Your task to perform on an android device: visit the assistant section in the google photos Image 0: 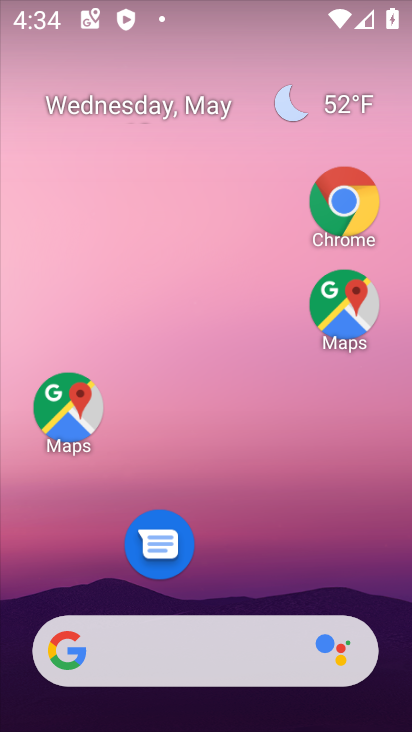
Step 0: drag from (250, 573) to (255, 191)
Your task to perform on an android device: visit the assistant section in the google photos Image 1: 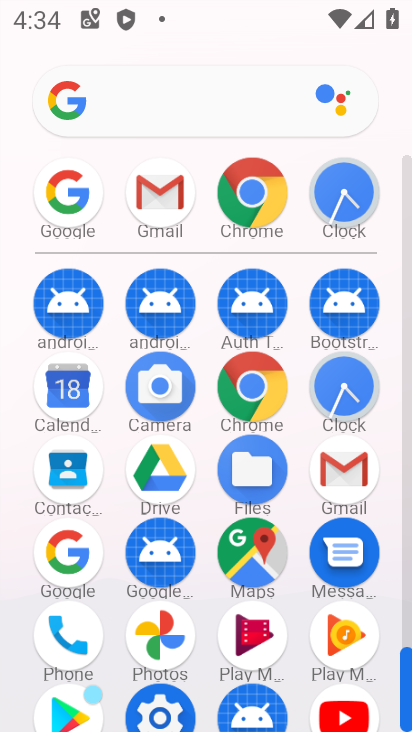
Step 1: click (164, 639)
Your task to perform on an android device: visit the assistant section in the google photos Image 2: 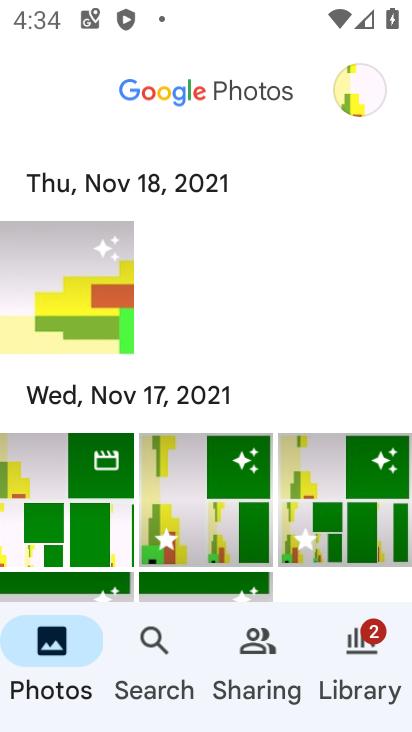
Step 2: click (160, 670)
Your task to perform on an android device: visit the assistant section in the google photos Image 3: 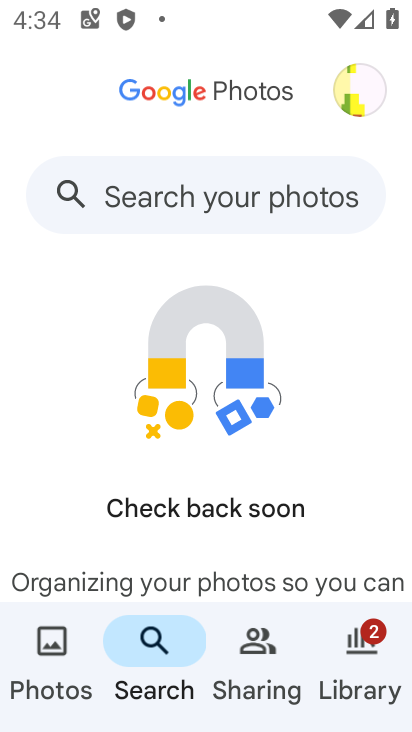
Step 3: drag from (234, 560) to (238, 345)
Your task to perform on an android device: visit the assistant section in the google photos Image 4: 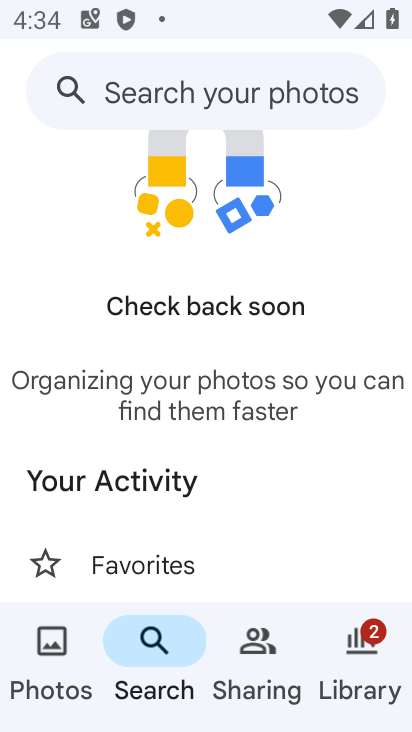
Step 4: click (261, 272)
Your task to perform on an android device: visit the assistant section in the google photos Image 5: 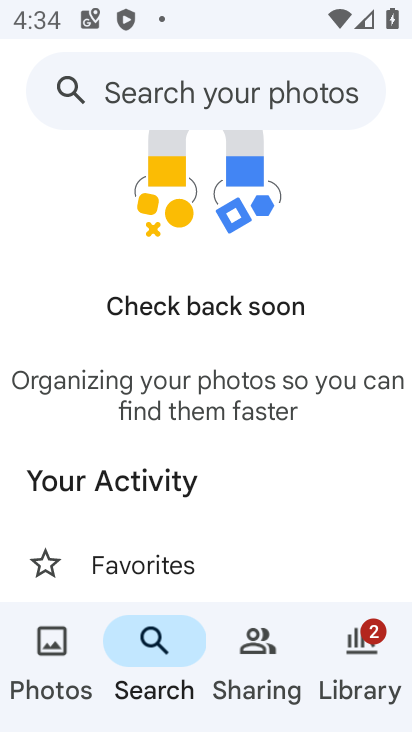
Step 5: drag from (201, 520) to (238, 303)
Your task to perform on an android device: visit the assistant section in the google photos Image 6: 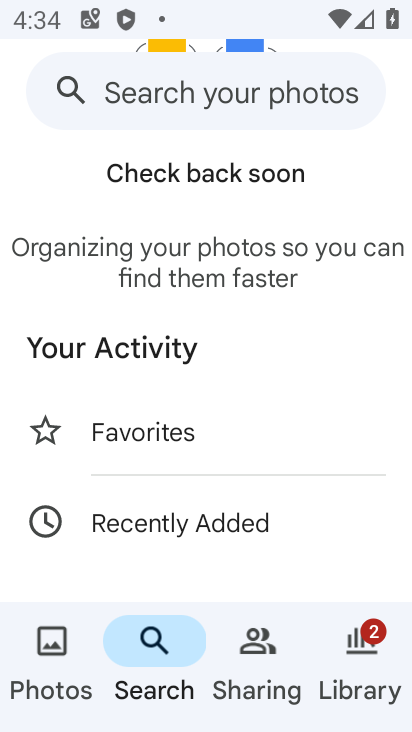
Step 6: drag from (161, 540) to (223, 356)
Your task to perform on an android device: visit the assistant section in the google photos Image 7: 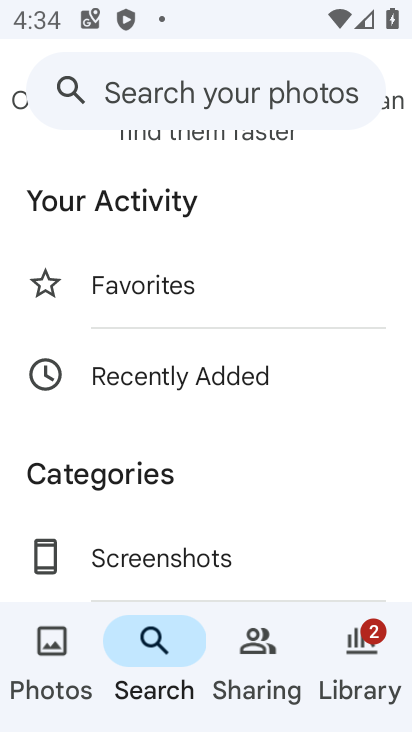
Step 7: drag from (188, 500) to (206, 240)
Your task to perform on an android device: visit the assistant section in the google photos Image 8: 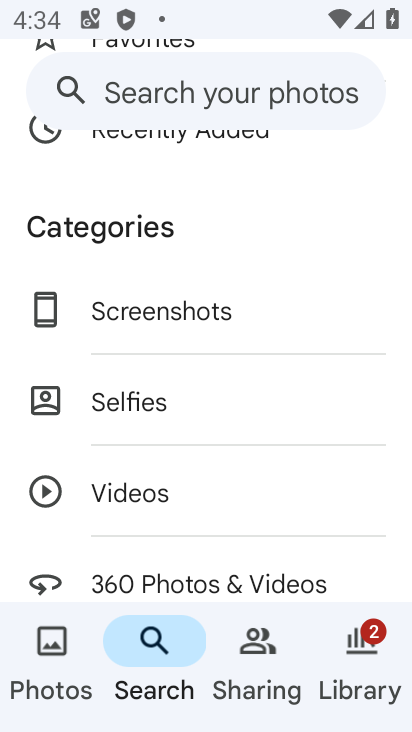
Step 8: drag from (133, 500) to (185, 260)
Your task to perform on an android device: visit the assistant section in the google photos Image 9: 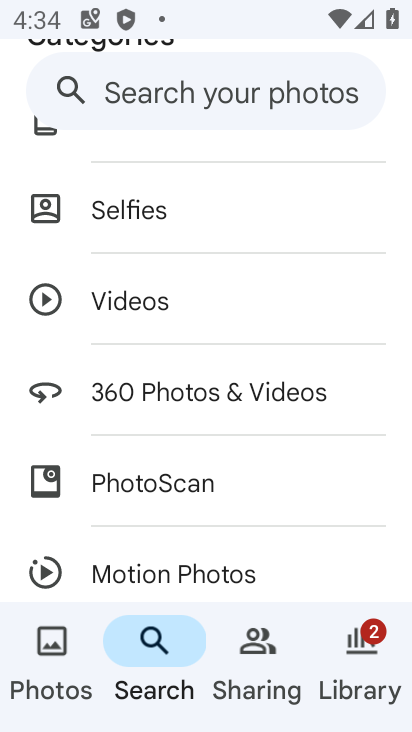
Step 9: click (209, 380)
Your task to perform on an android device: visit the assistant section in the google photos Image 10: 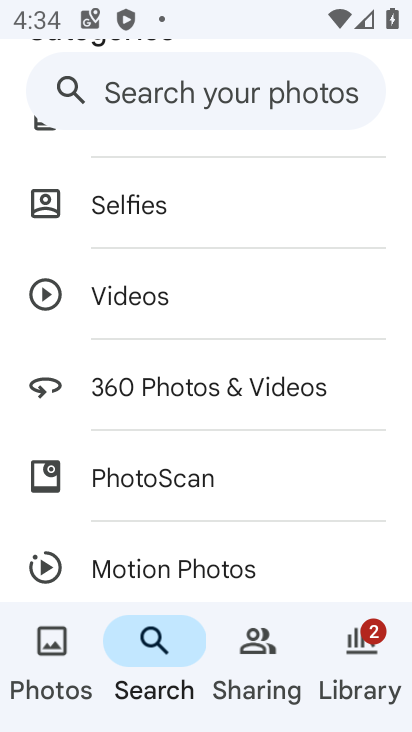
Step 10: drag from (173, 521) to (201, 326)
Your task to perform on an android device: visit the assistant section in the google photos Image 11: 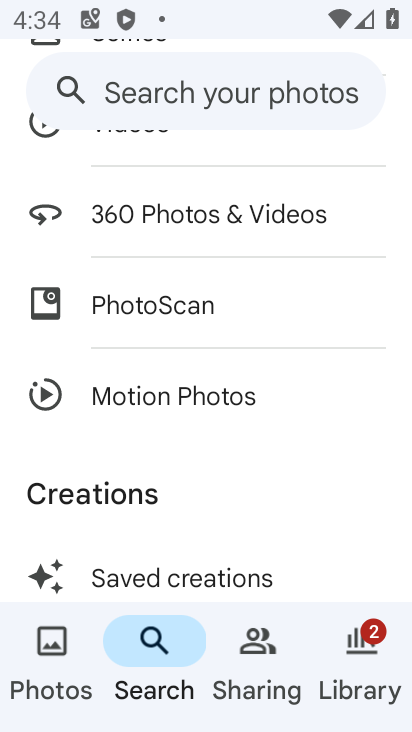
Step 11: drag from (190, 518) to (247, 267)
Your task to perform on an android device: visit the assistant section in the google photos Image 12: 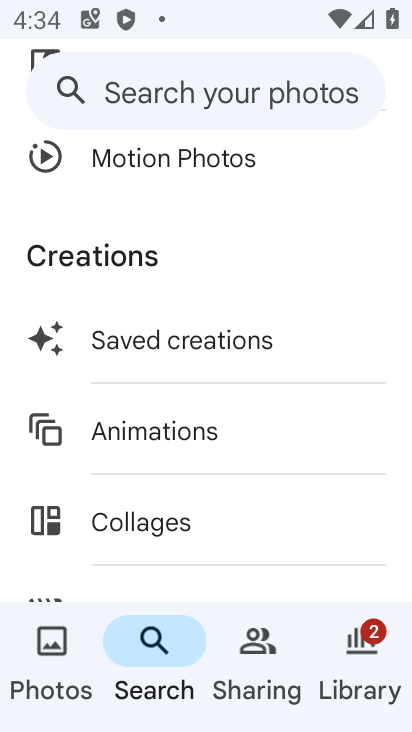
Step 12: drag from (195, 506) to (202, 251)
Your task to perform on an android device: visit the assistant section in the google photos Image 13: 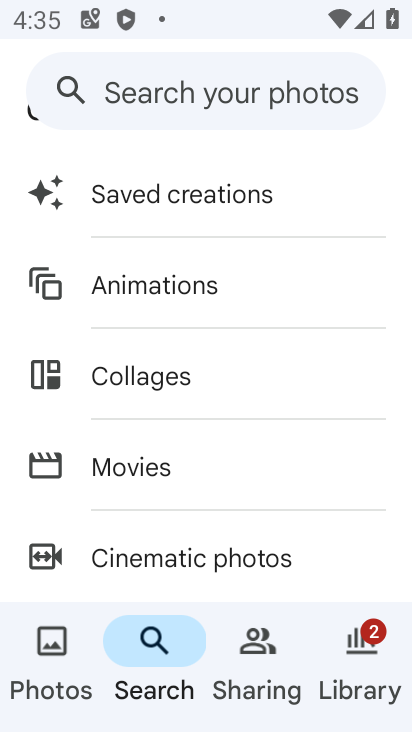
Step 13: click (211, 259)
Your task to perform on an android device: visit the assistant section in the google photos Image 14: 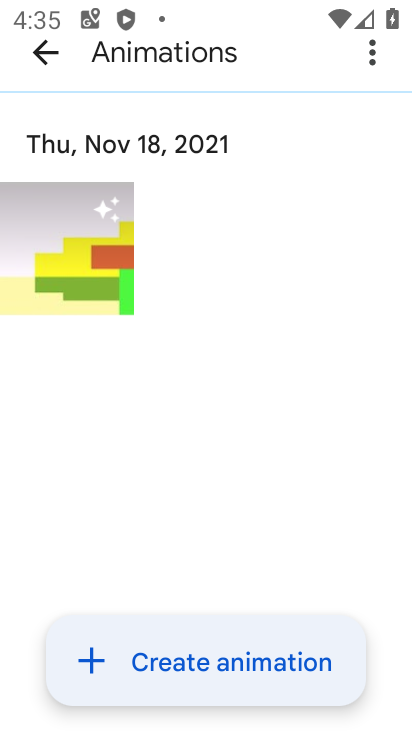
Step 14: click (44, 40)
Your task to perform on an android device: visit the assistant section in the google photos Image 15: 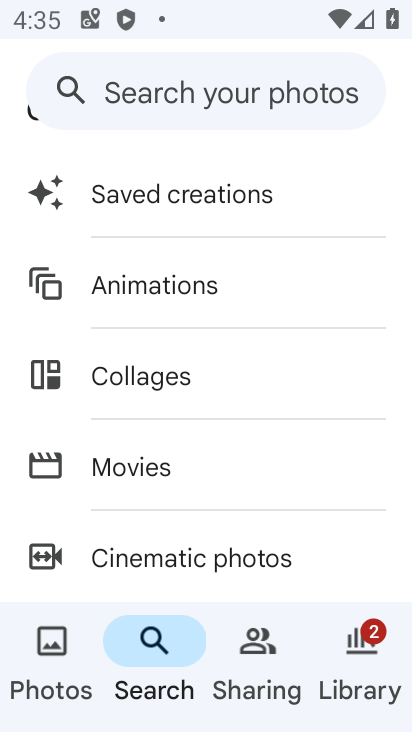
Step 15: drag from (190, 495) to (176, 222)
Your task to perform on an android device: visit the assistant section in the google photos Image 16: 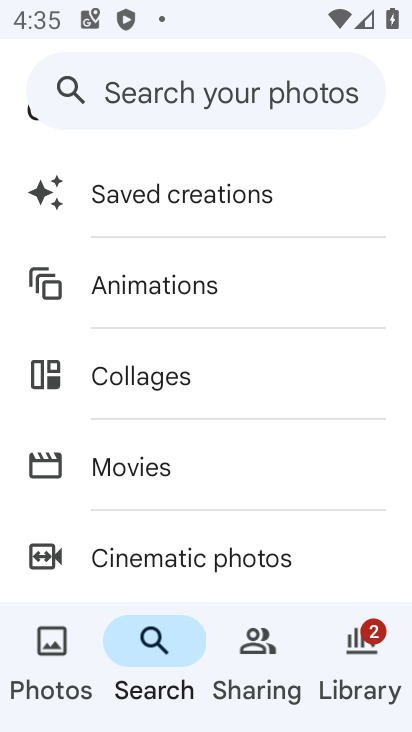
Step 16: drag from (233, 534) to (242, 316)
Your task to perform on an android device: visit the assistant section in the google photos Image 17: 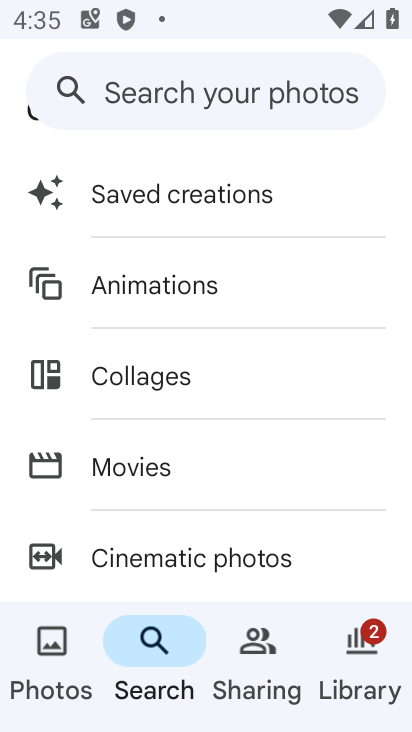
Step 17: click (247, 672)
Your task to perform on an android device: visit the assistant section in the google photos Image 18: 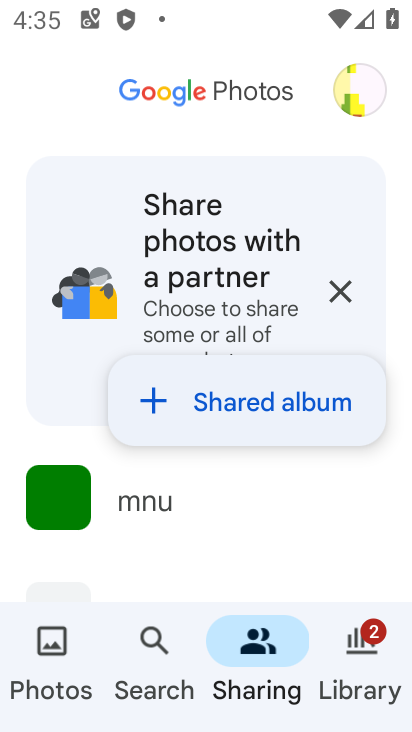
Step 18: click (377, 679)
Your task to perform on an android device: visit the assistant section in the google photos Image 19: 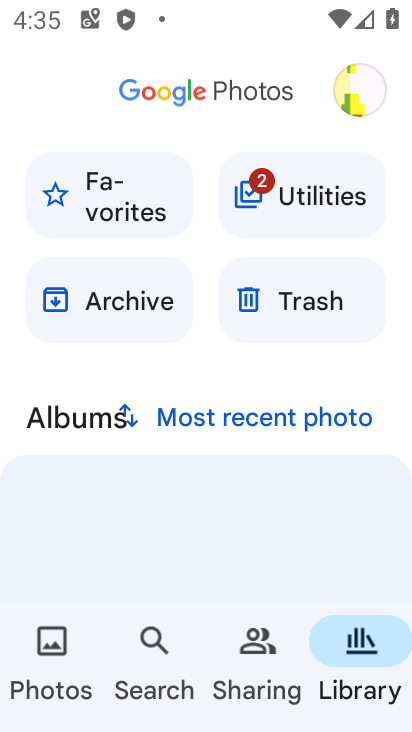
Step 19: task complete